Your task to perform on an android device: toggle improve location accuracy Image 0: 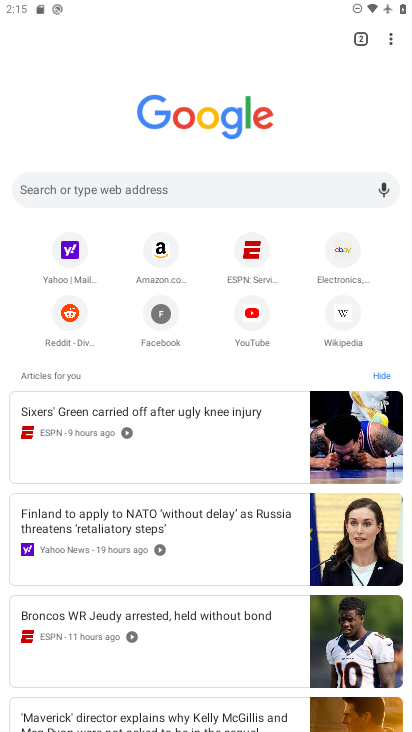
Step 0: press home button
Your task to perform on an android device: toggle improve location accuracy Image 1: 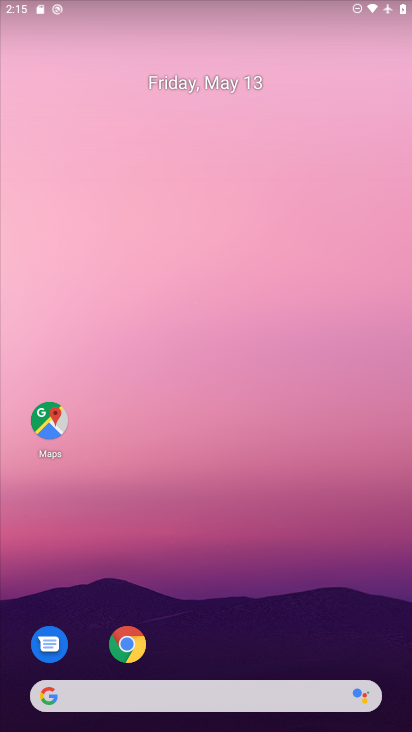
Step 1: drag from (311, 625) to (200, 62)
Your task to perform on an android device: toggle improve location accuracy Image 2: 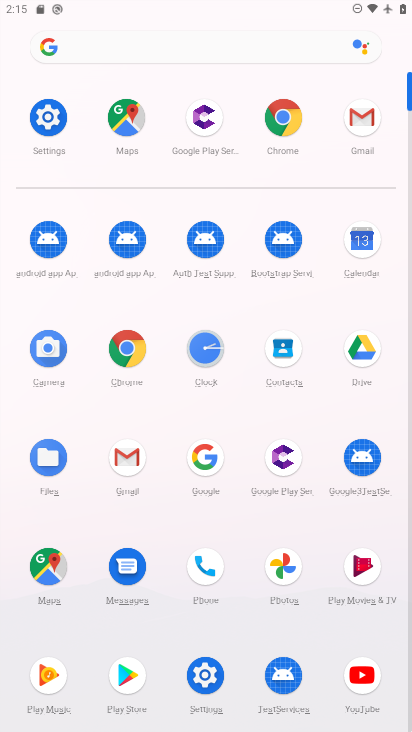
Step 2: click (197, 696)
Your task to perform on an android device: toggle improve location accuracy Image 3: 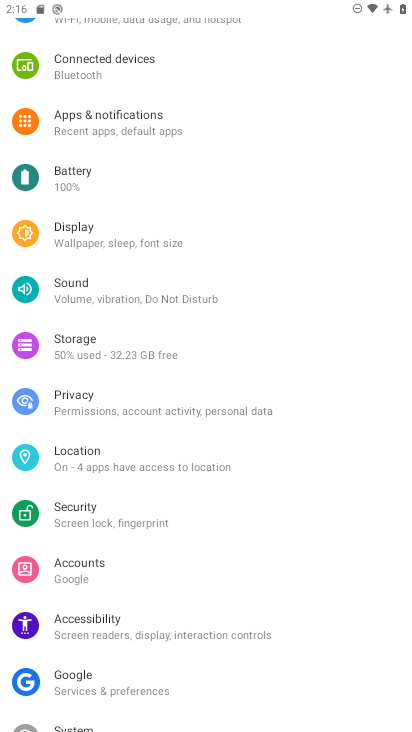
Step 3: click (144, 462)
Your task to perform on an android device: toggle improve location accuracy Image 4: 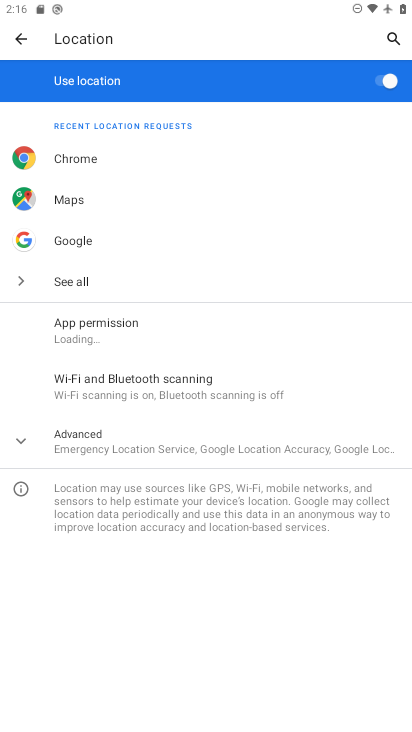
Step 4: click (146, 440)
Your task to perform on an android device: toggle improve location accuracy Image 5: 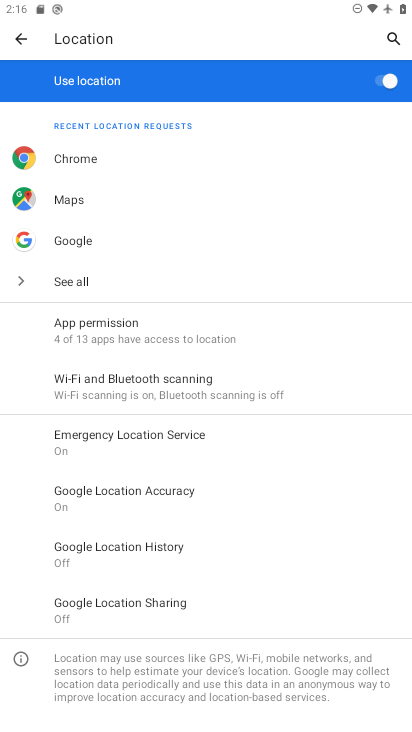
Step 5: click (144, 497)
Your task to perform on an android device: toggle improve location accuracy Image 6: 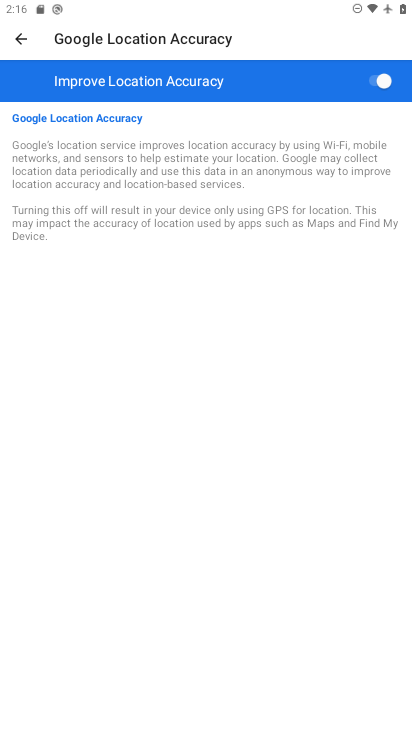
Step 6: click (355, 81)
Your task to perform on an android device: toggle improve location accuracy Image 7: 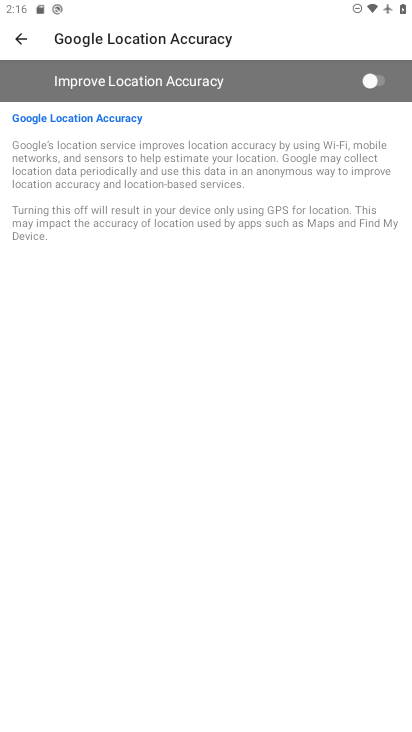
Step 7: task complete